Your task to perform on an android device: Go to wifi settings Image 0: 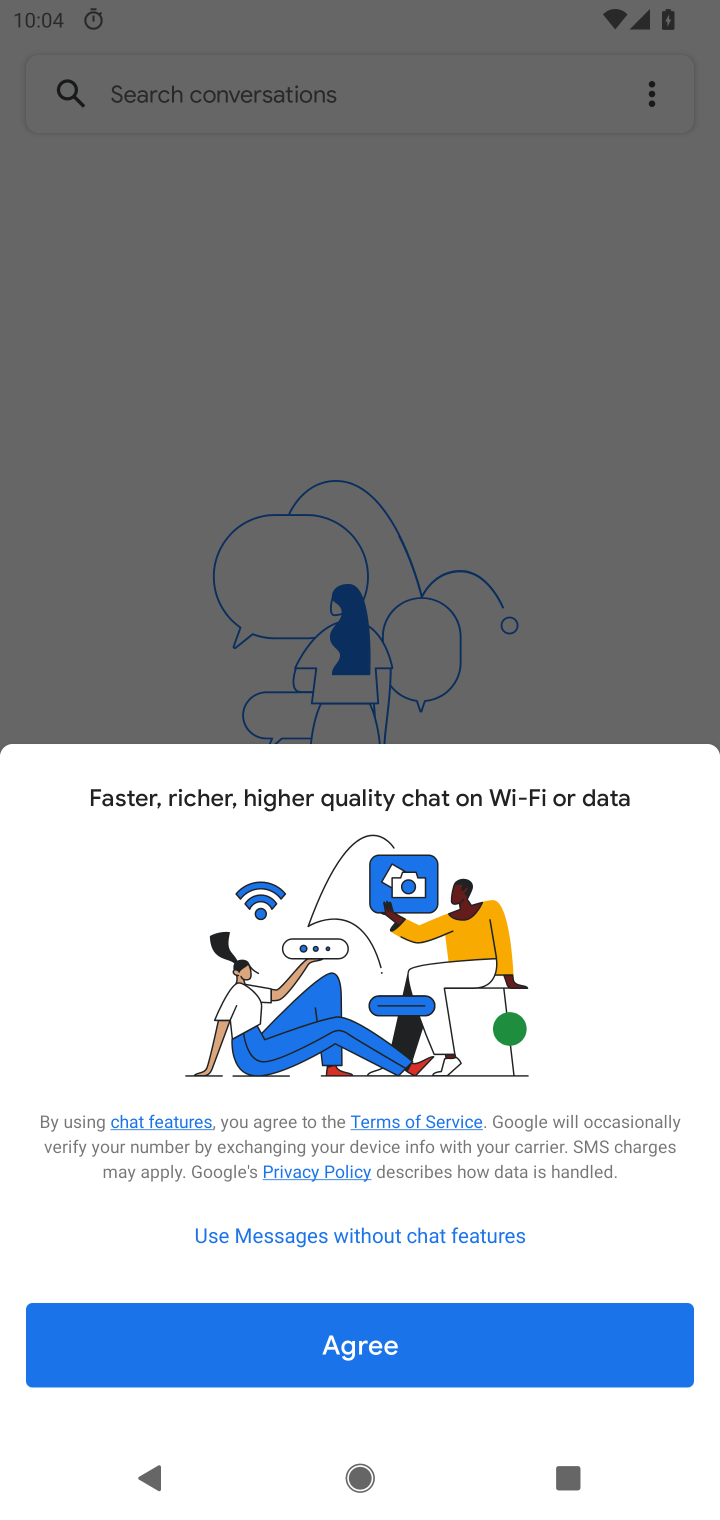
Step 0: press home button
Your task to perform on an android device: Go to wifi settings Image 1: 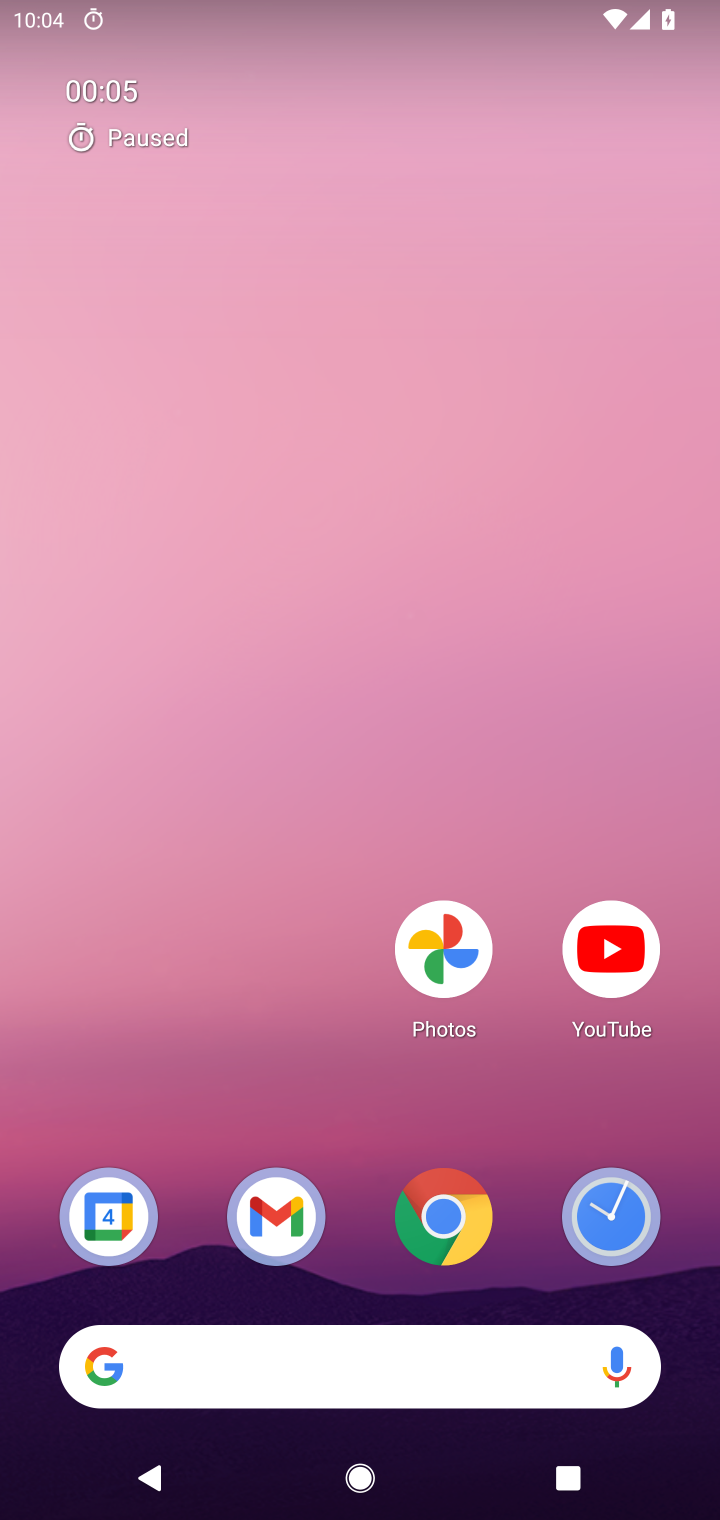
Step 1: drag from (341, 806) to (341, 142)
Your task to perform on an android device: Go to wifi settings Image 2: 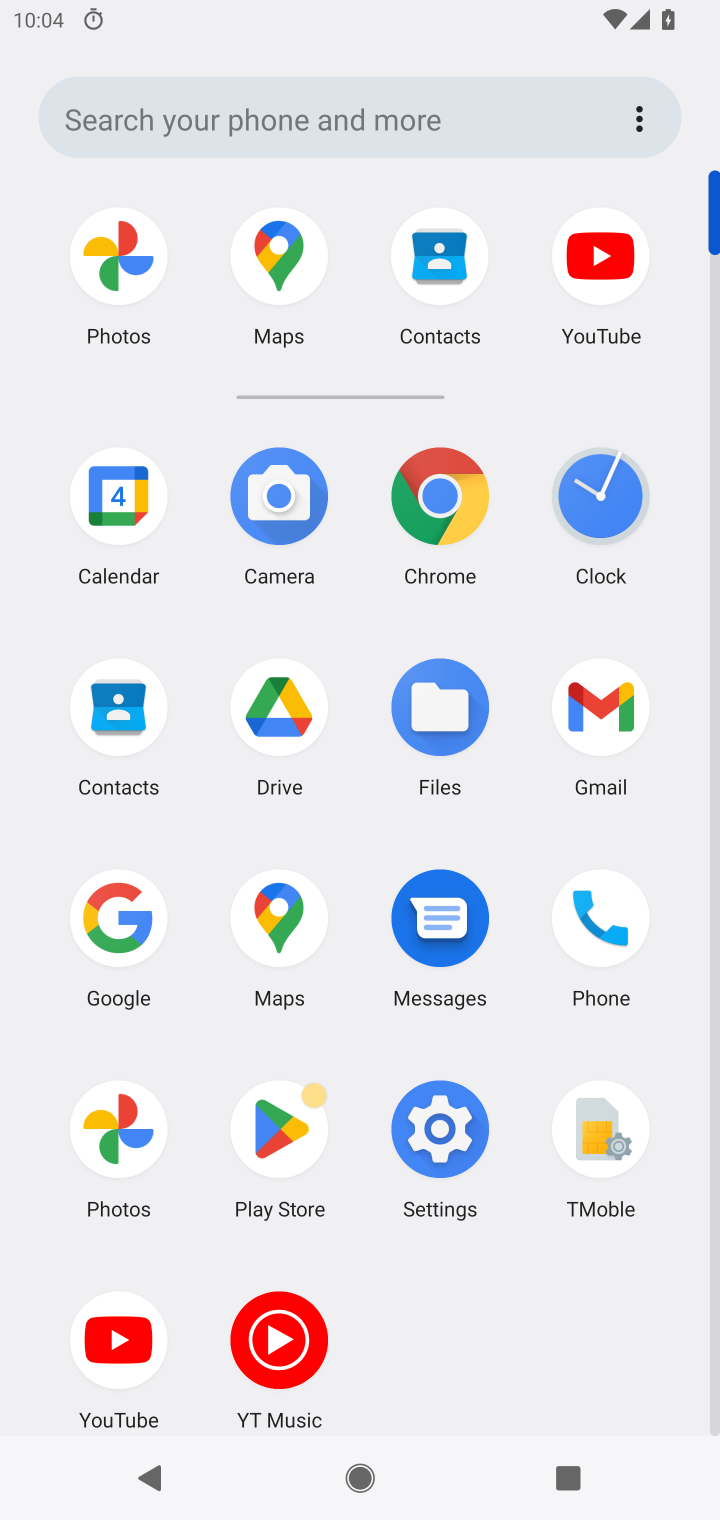
Step 2: click (451, 1123)
Your task to perform on an android device: Go to wifi settings Image 3: 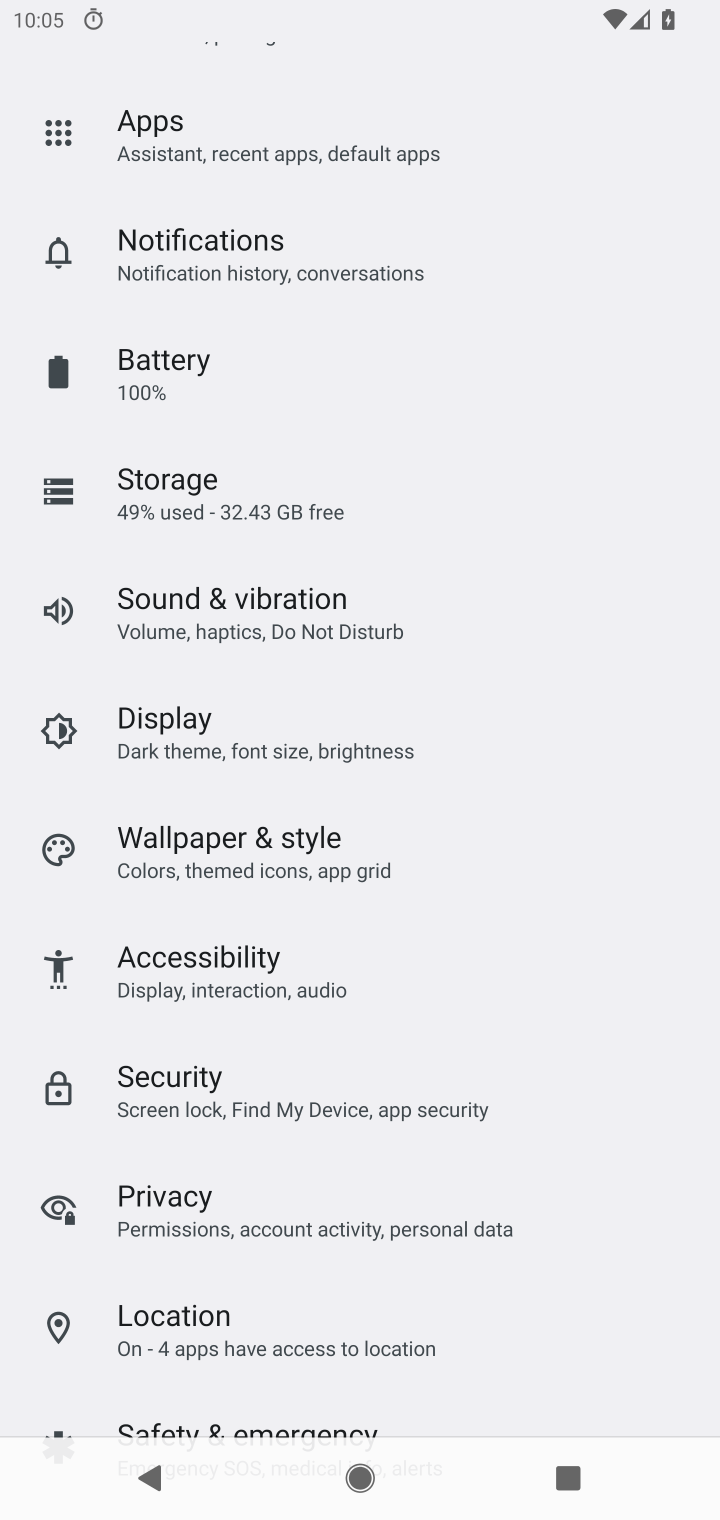
Step 3: drag from (227, 236) to (253, 1094)
Your task to perform on an android device: Go to wifi settings Image 4: 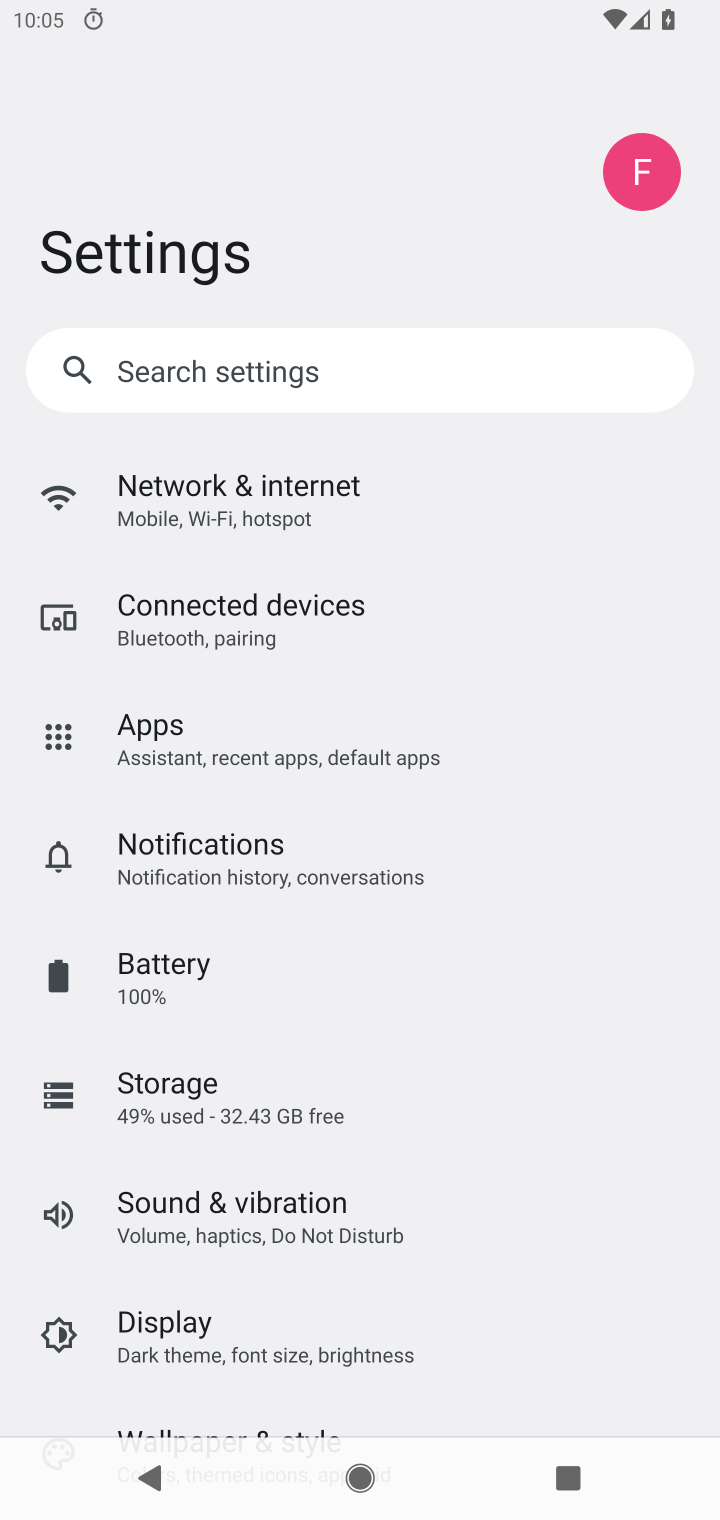
Step 4: click (168, 500)
Your task to perform on an android device: Go to wifi settings Image 5: 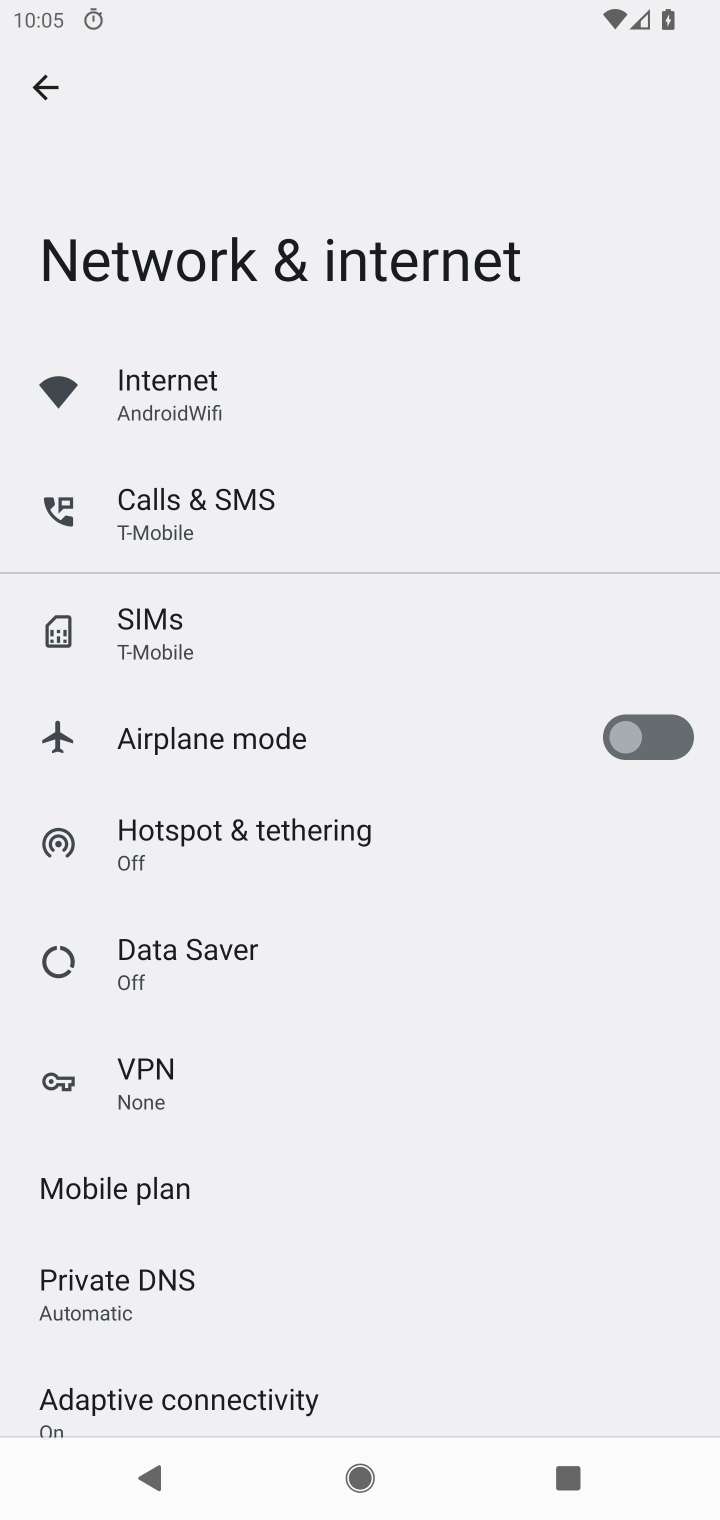
Step 5: click (149, 377)
Your task to perform on an android device: Go to wifi settings Image 6: 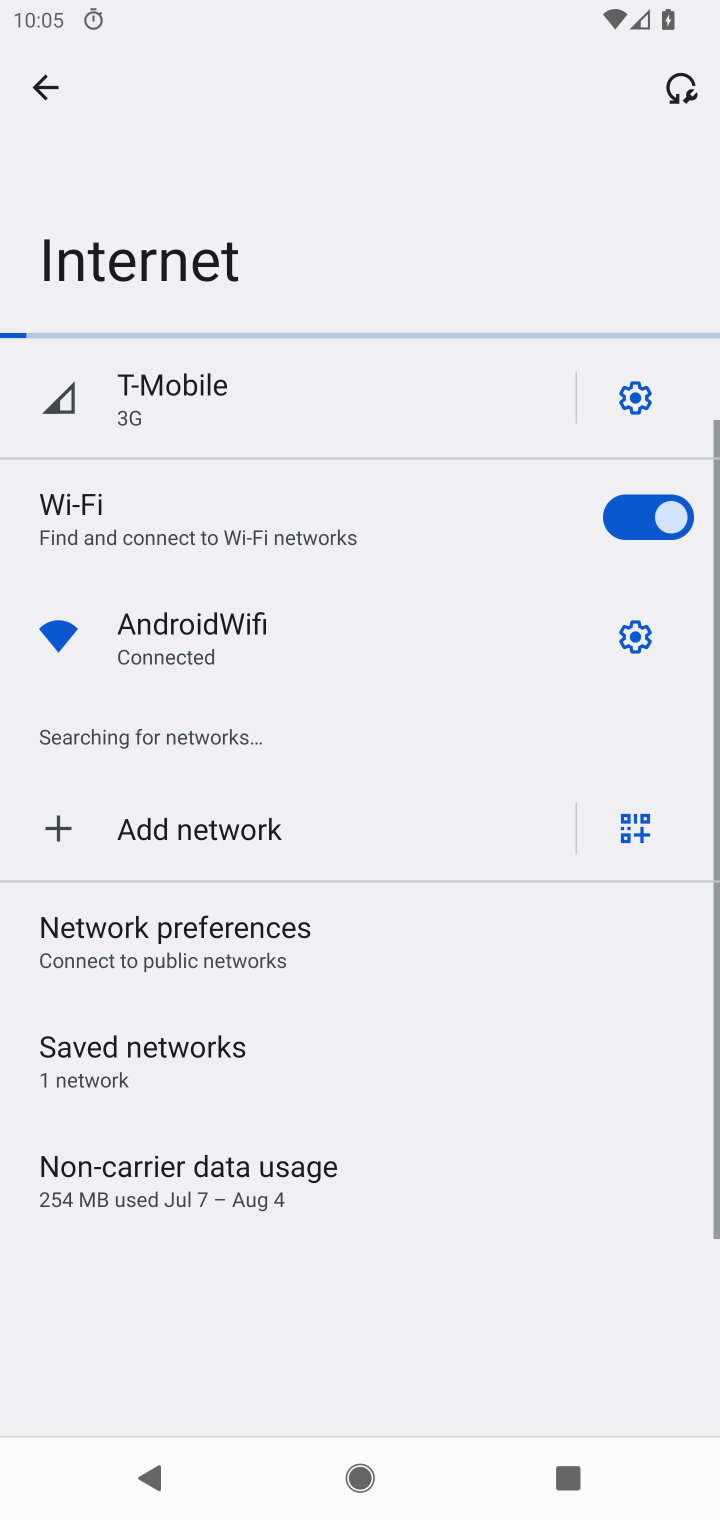
Step 6: task complete